Your task to perform on an android device: clear history in the chrome app Image 0: 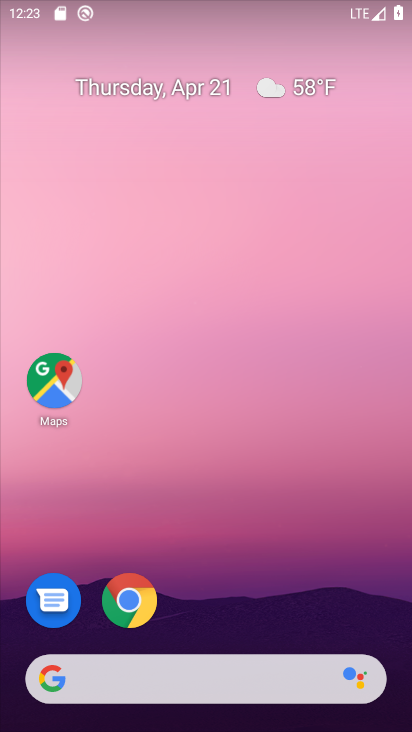
Step 0: click (141, 597)
Your task to perform on an android device: clear history in the chrome app Image 1: 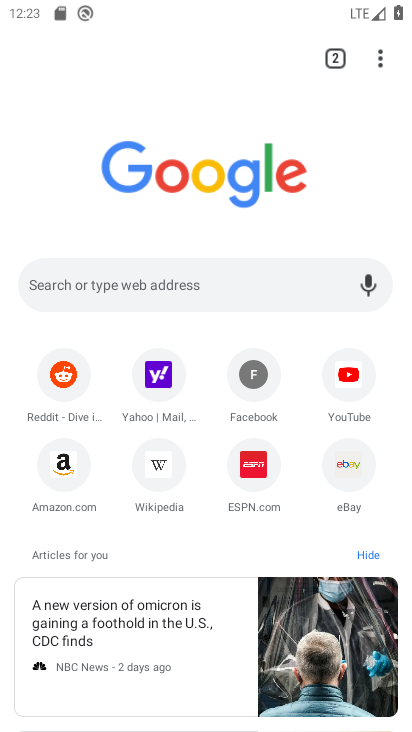
Step 1: click (380, 60)
Your task to perform on an android device: clear history in the chrome app Image 2: 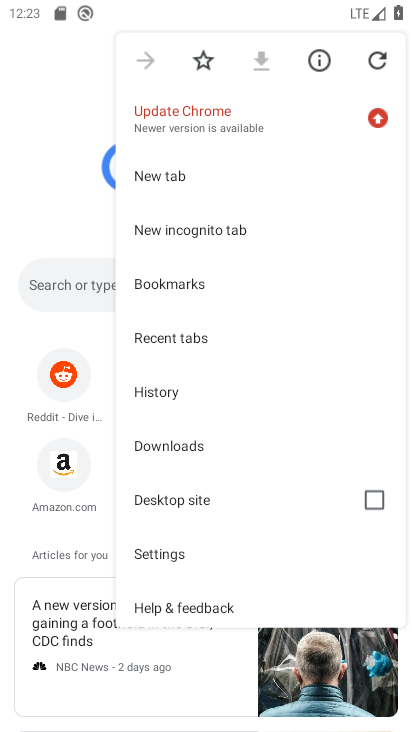
Step 2: click (207, 390)
Your task to perform on an android device: clear history in the chrome app Image 3: 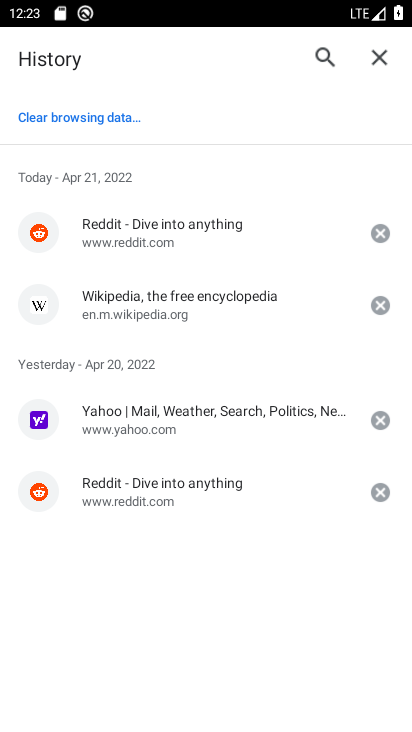
Step 3: click (121, 108)
Your task to perform on an android device: clear history in the chrome app Image 4: 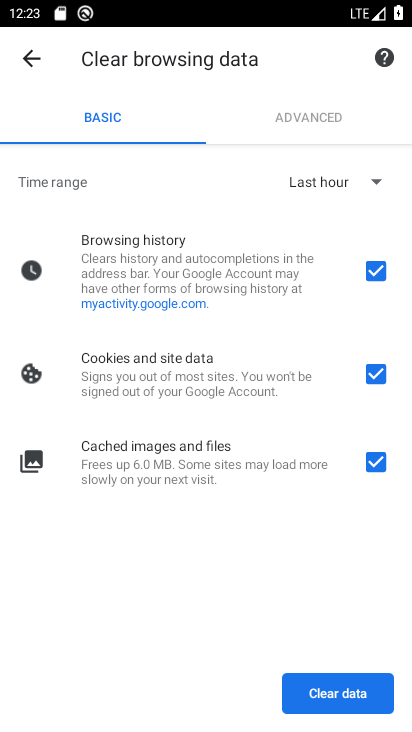
Step 4: click (364, 689)
Your task to perform on an android device: clear history in the chrome app Image 5: 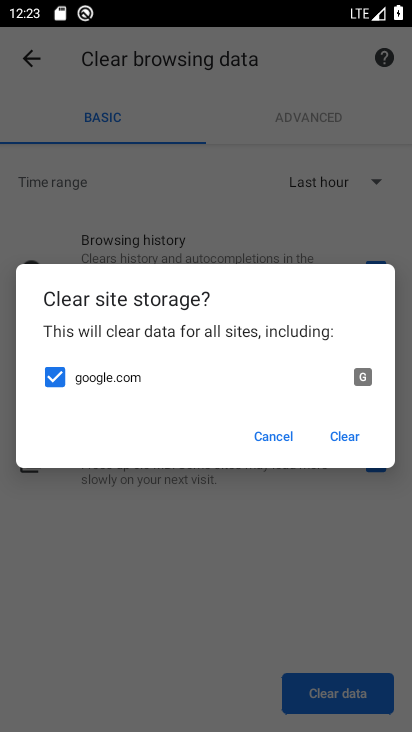
Step 5: click (354, 426)
Your task to perform on an android device: clear history in the chrome app Image 6: 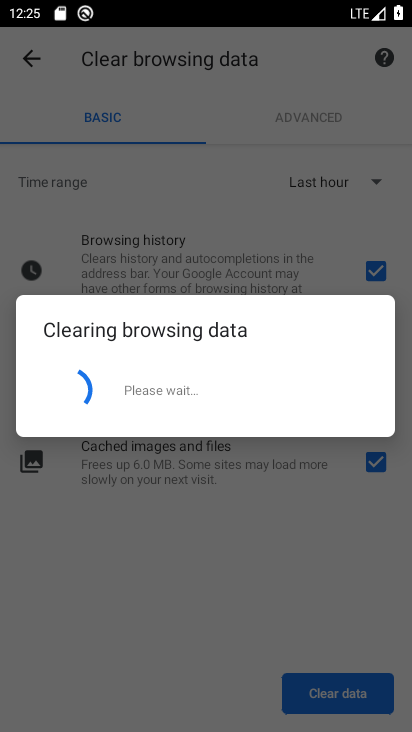
Step 6: task complete